Your task to perform on an android device: Find coffee shops on Maps Image 0: 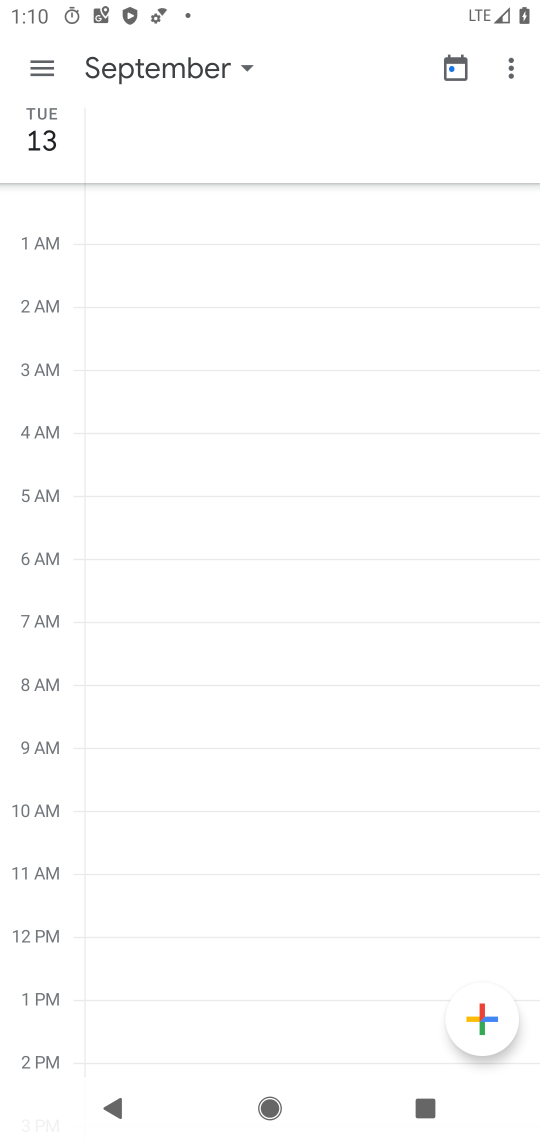
Step 0: press home button
Your task to perform on an android device: Find coffee shops on Maps Image 1: 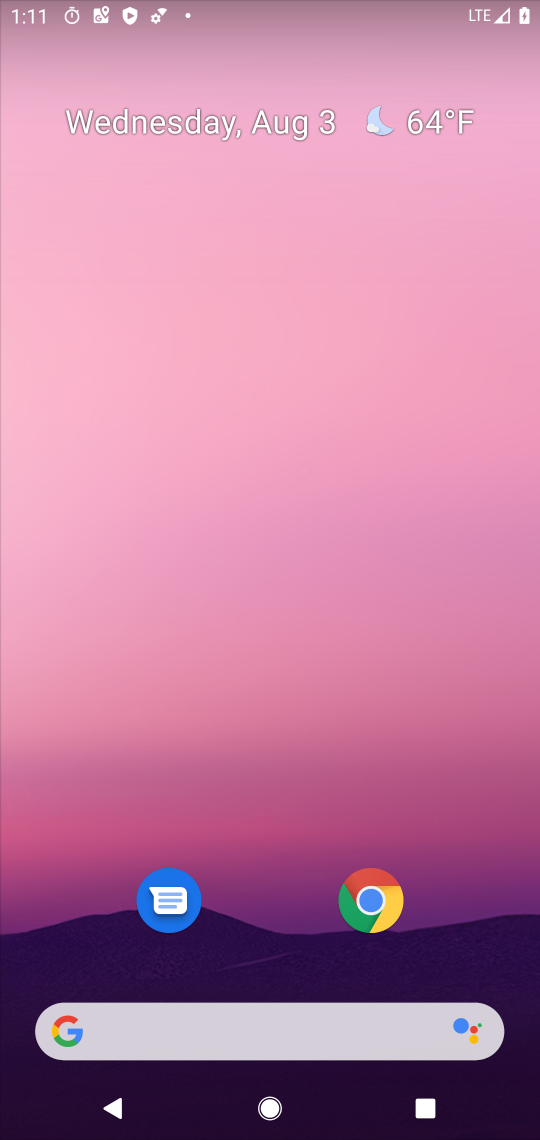
Step 1: drag from (277, 941) to (357, 279)
Your task to perform on an android device: Find coffee shops on Maps Image 2: 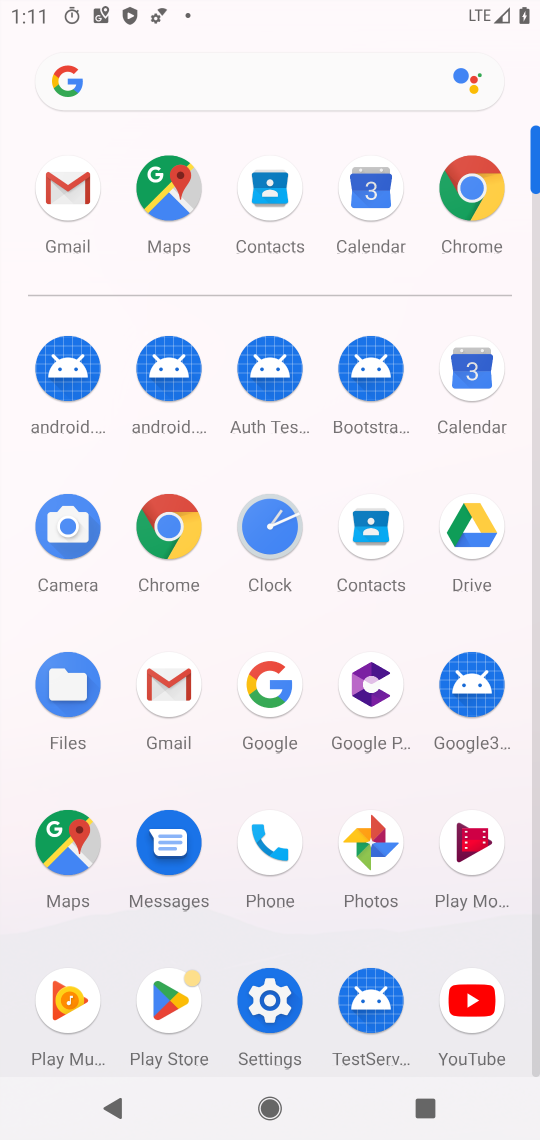
Step 2: click (78, 839)
Your task to perform on an android device: Find coffee shops on Maps Image 3: 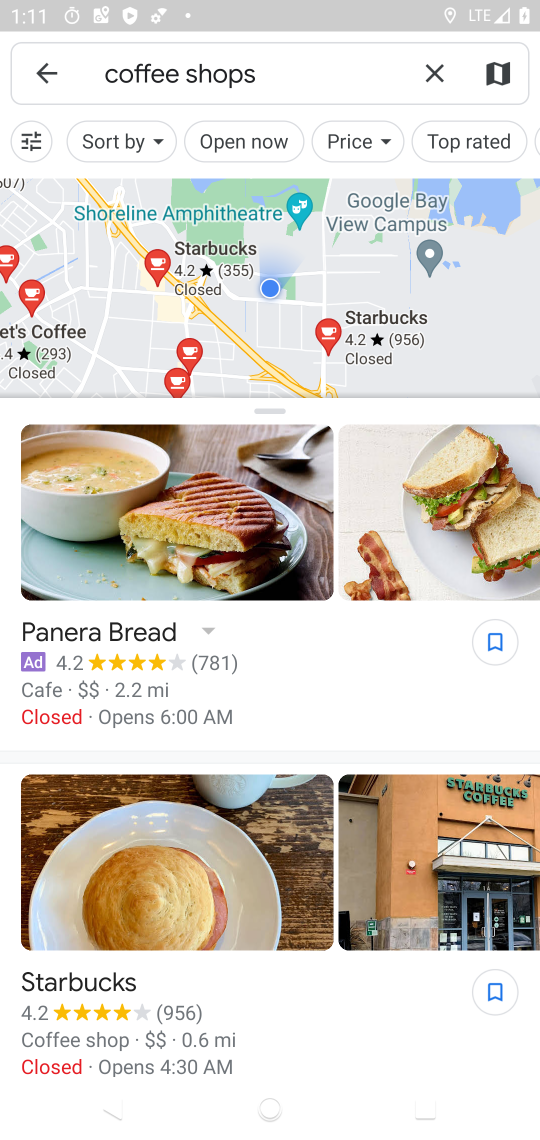
Step 3: task complete